Your task to perform on an android device: set an alarm Image 0: 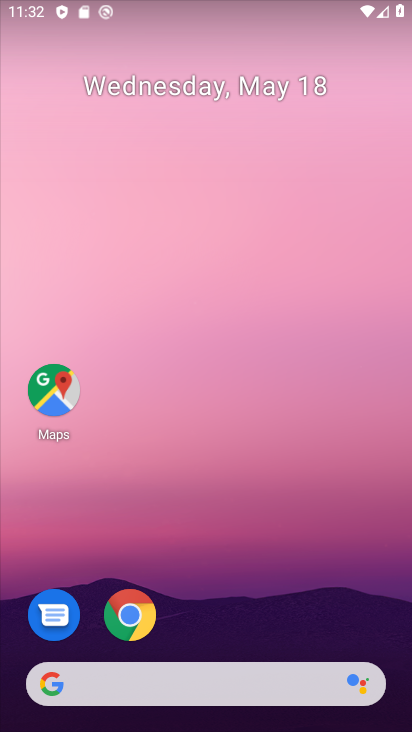
Step 0: drag from (36, 572) to (261, 131)
Your task to perform on an android device: set an alarm Image 1: 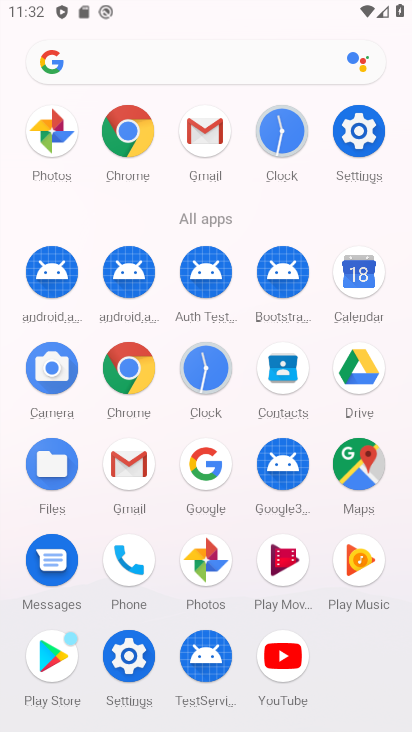
Step 1: click (199, 378)
Your task to perform on an android device: set an alarm Image 2: 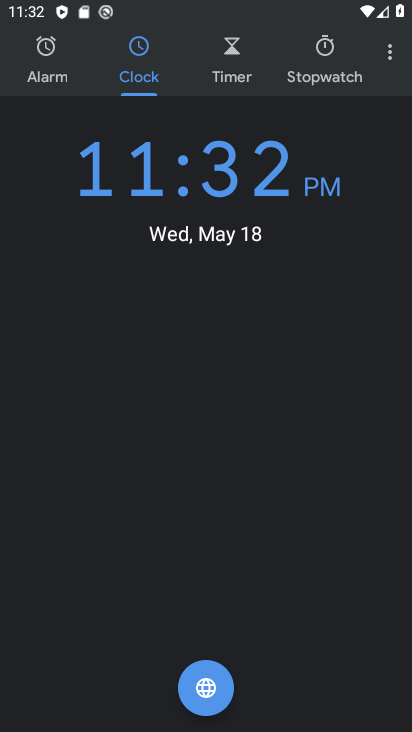
Step 2: click (62, 56)
Your task to perform on an android device: set an alarm Image 3: 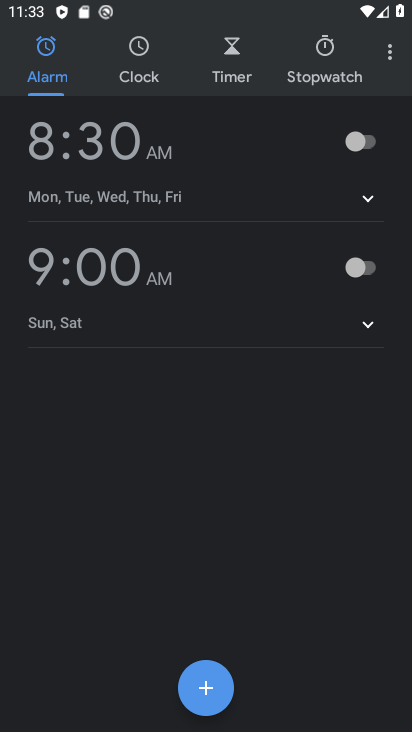
Step 3: click (204, 698)
Your task to perform on an android device: set an alarm Image 4: 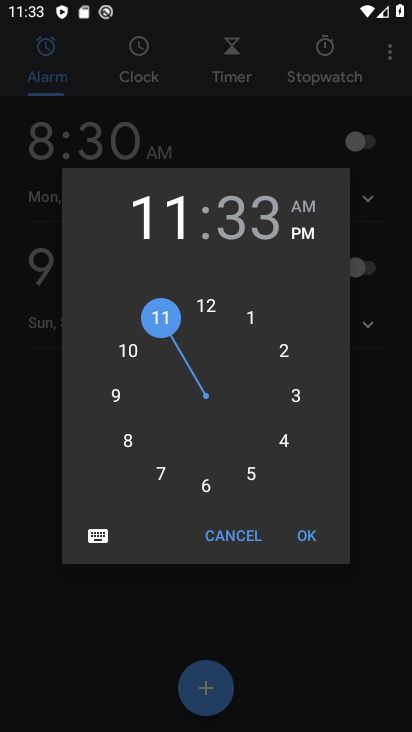
Step 4: click (305, 549)
Your task to perform on an android device: set an alarm Image 5: 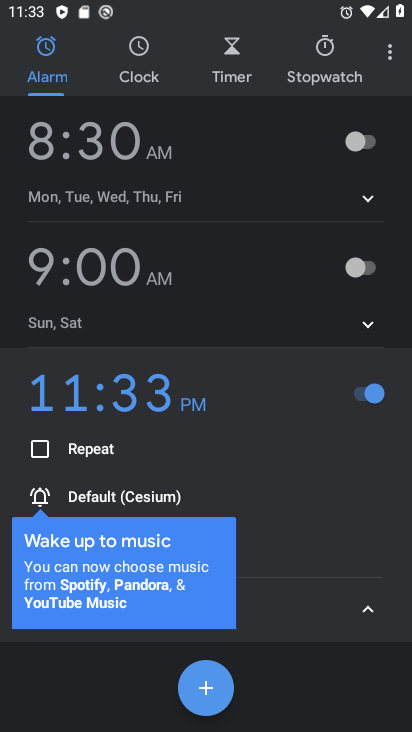
Step 5: task complete